Your task to perform on an android device: Open Google Chrome and open the bookmarks view Image 0: 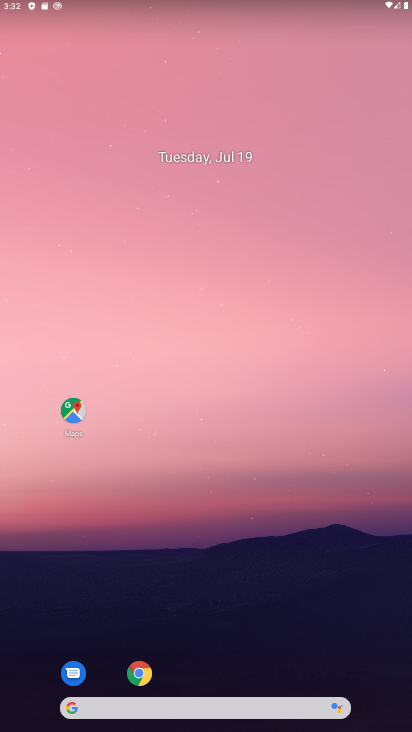
Step 0: click (212, 77)
Your task to perform on an android device: Open Google Chrome and open the bookmarks view Image 1: 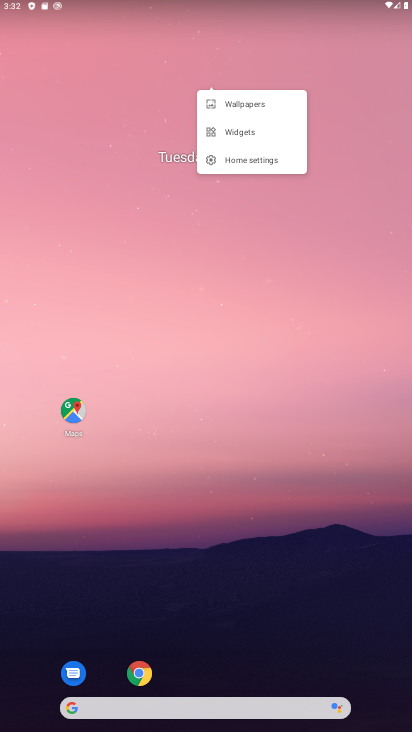
Step 1: click (244, 447)
Your task to perform on an android device: Open Google Chrome and open the bookmarks view Image 2: 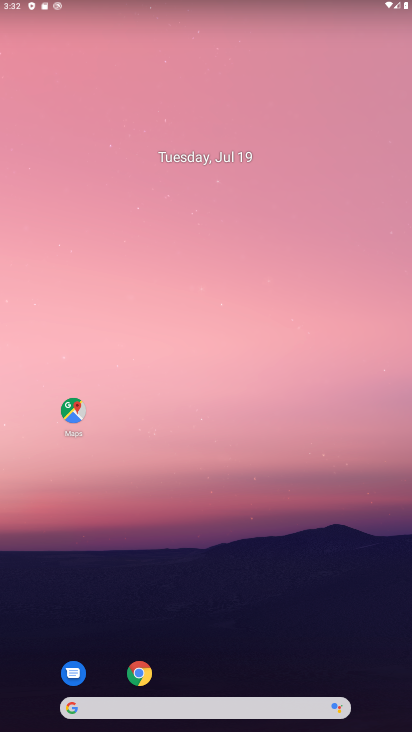
Step 2: drag from (287, 417) to (253, 74)
Your task to perform on an android device: Open Google Chrome and open the bookmarks view Image 3: 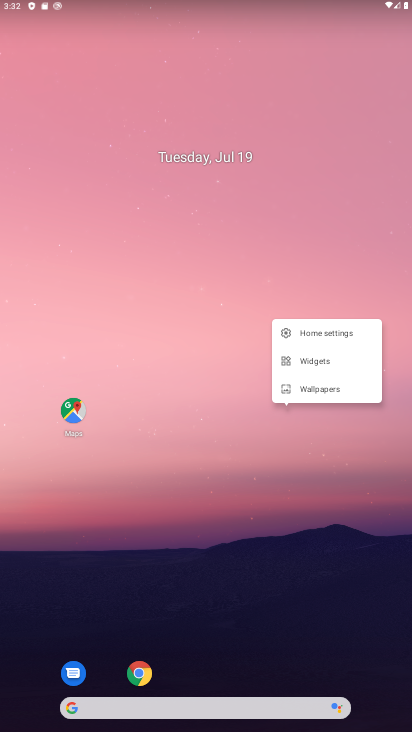
Step 3: click (206, 420)
Your task to perform on an android device: Open Google Chrome and open the bookmarks view Image 4: 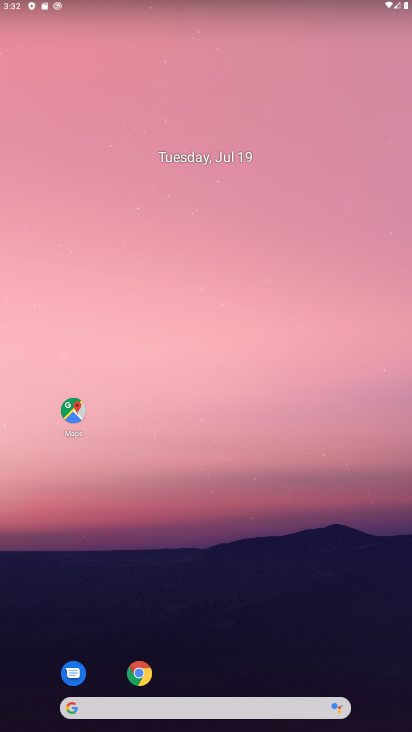
Step 4: drag from (275, 618) to (216, 82)
Your task to perform on an android device: Open Google Chrome and open the bookmarks view Image 5: 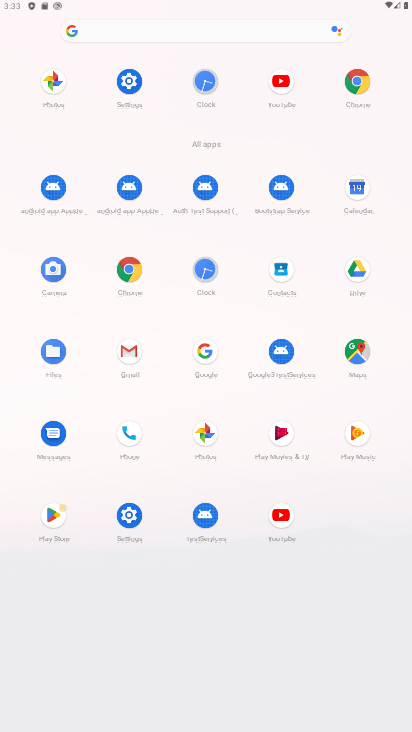
Step 5: click (358, 81)
Your task to perform on an android device: Open Google Chrome and open the bookmarks view Image 6: 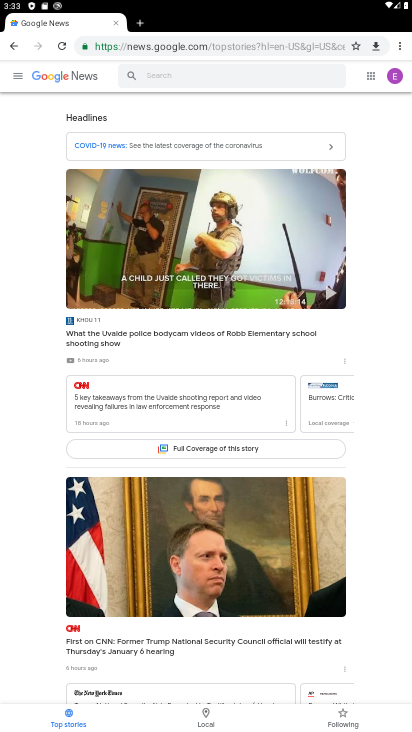
Step 6: task complete